Your task to perform on an android device: check storage Image 0: 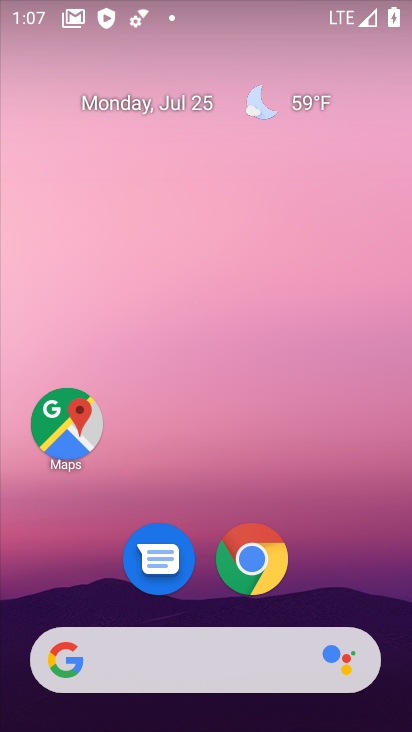
Step 0: drag from (107, 554) to (225, 1)
Your task to perform on an android device: check storage Image 1: 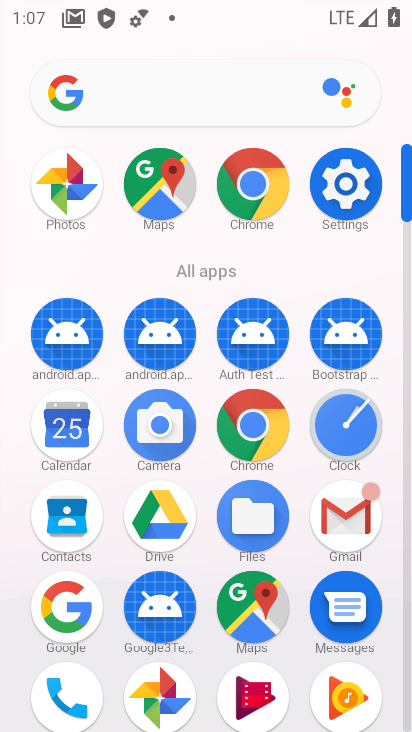
Step 1: click (349, 174)
Your task to perform on an android device: check storage Image 2: 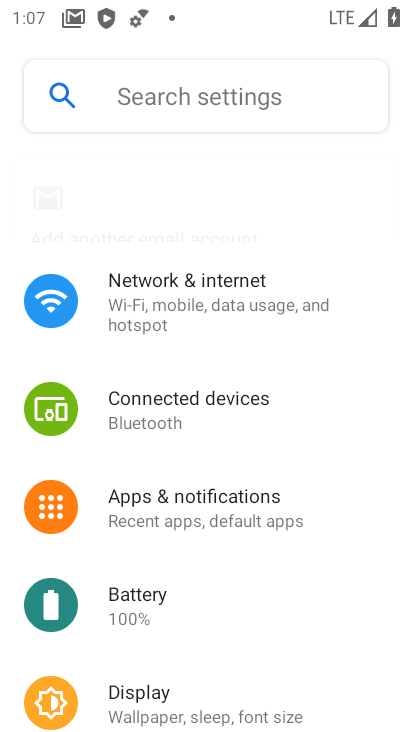
Step 2: drag from (214, 633) to (315, 94)
Your task to perform on an android device: check storage Image 3: 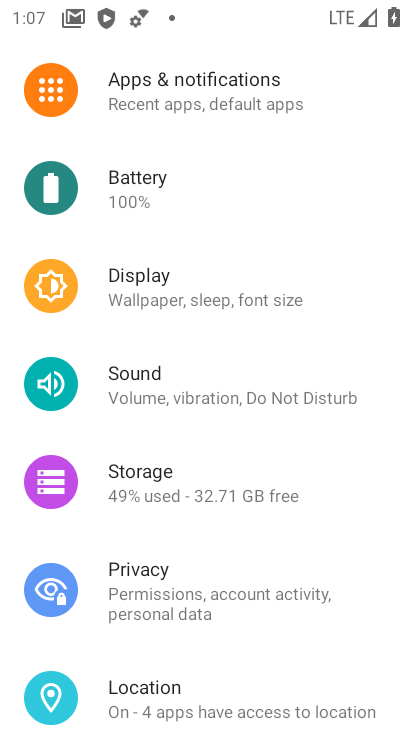
Step 3: click (220, 493)
Your task to perform on an android device: check storage Image 4: 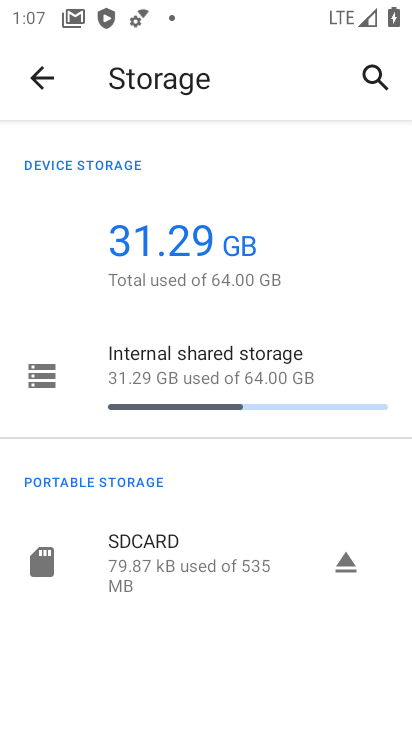
Step 4: task complete